Your task to perform on an android device: change the clock display to show seconds Image 0: 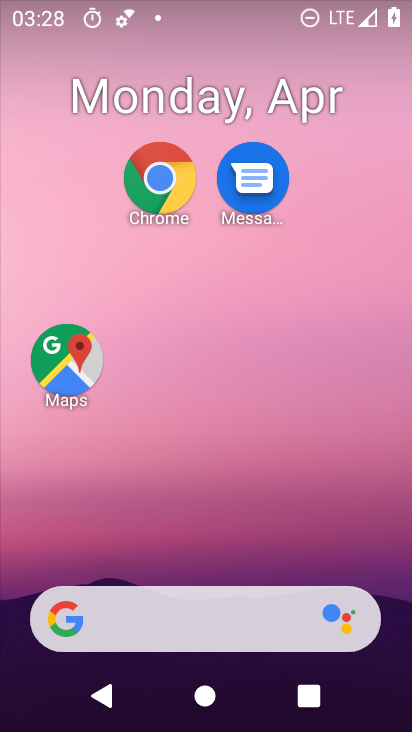
Step 0: drag from (236, 575) to (252, 8)
Your task to perform on an android device: change the clock display to show seconds Image 1: 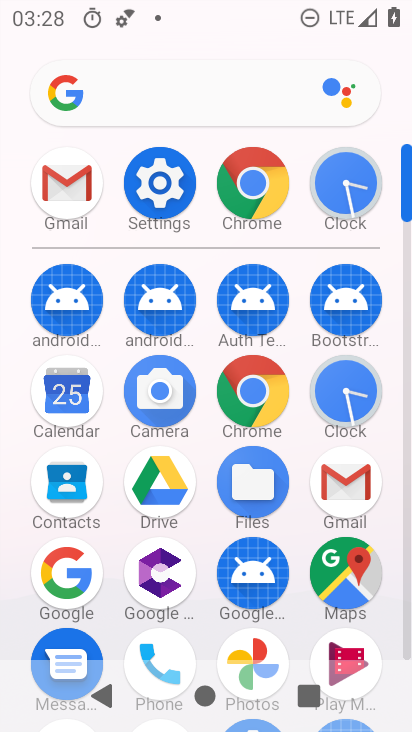
Step 1: click (347, 366)
Your task to perform on an android device: change the clock display to show seconds Image 2: 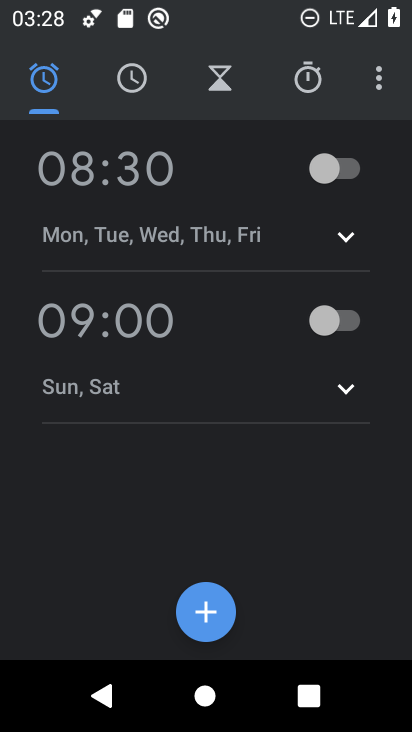
Step 2: click (370, 84)
Your task to perform on an android device: change the clock display to show seconds Image 3: 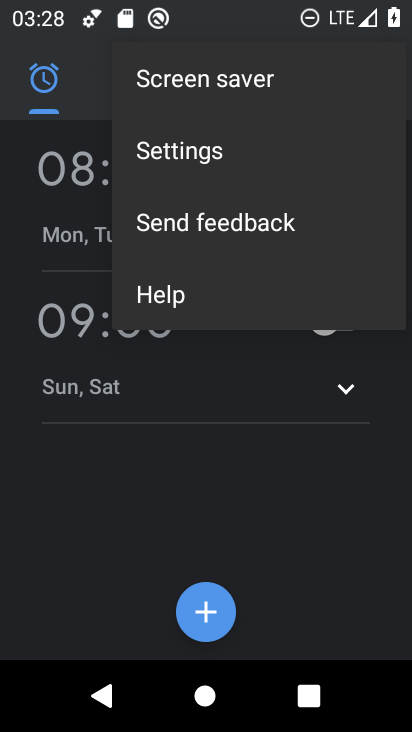
Step 3: click (231, 143)
Your task to perform on an android device: change the clock display to show seconds Image 4: 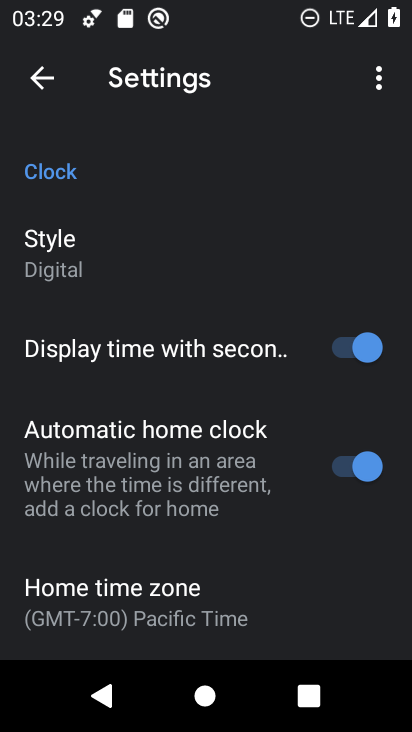
Step 4: task complete